Your task to perform on an android device: toggle translation in the chrome app Image 0: 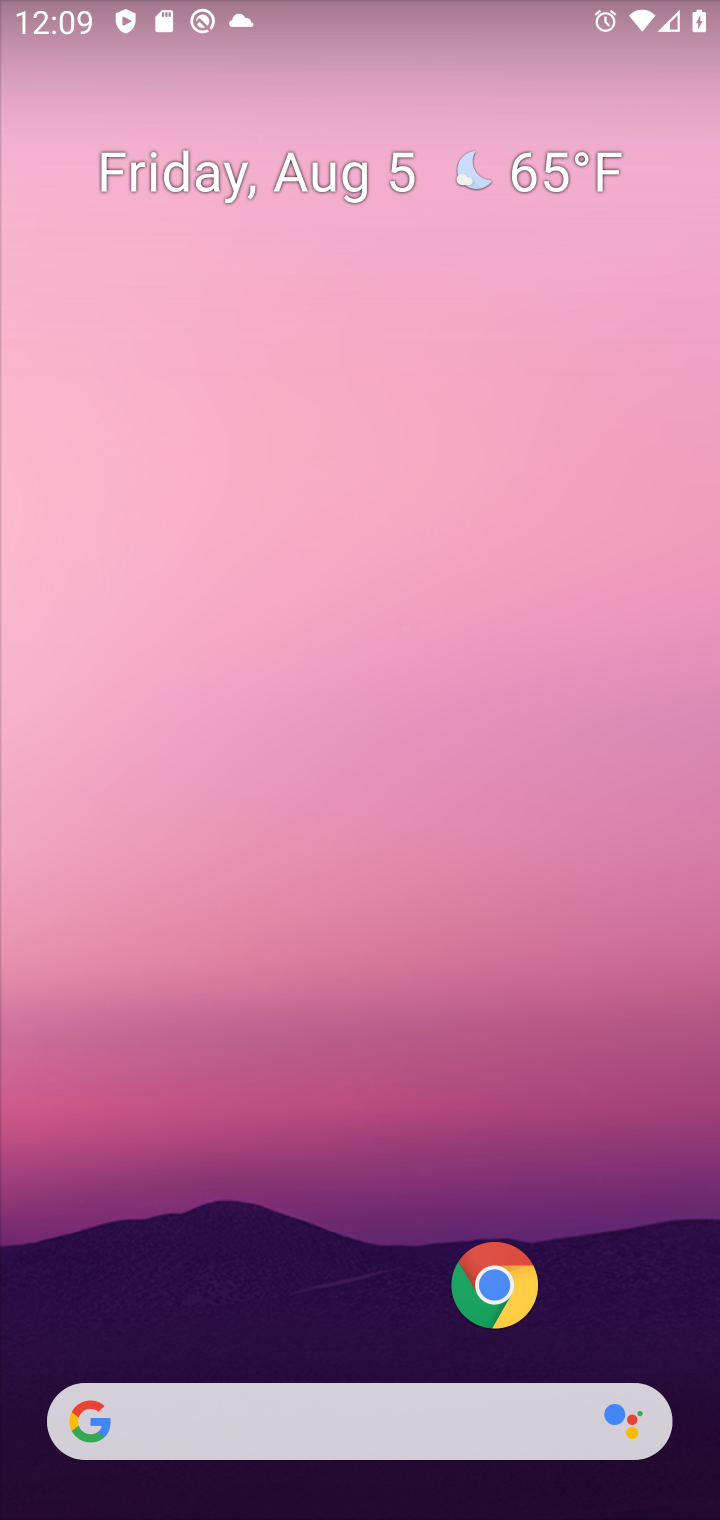
Step 0: press home button
Your task to perform on an android device: toggle translation in the chrome app Image 1: 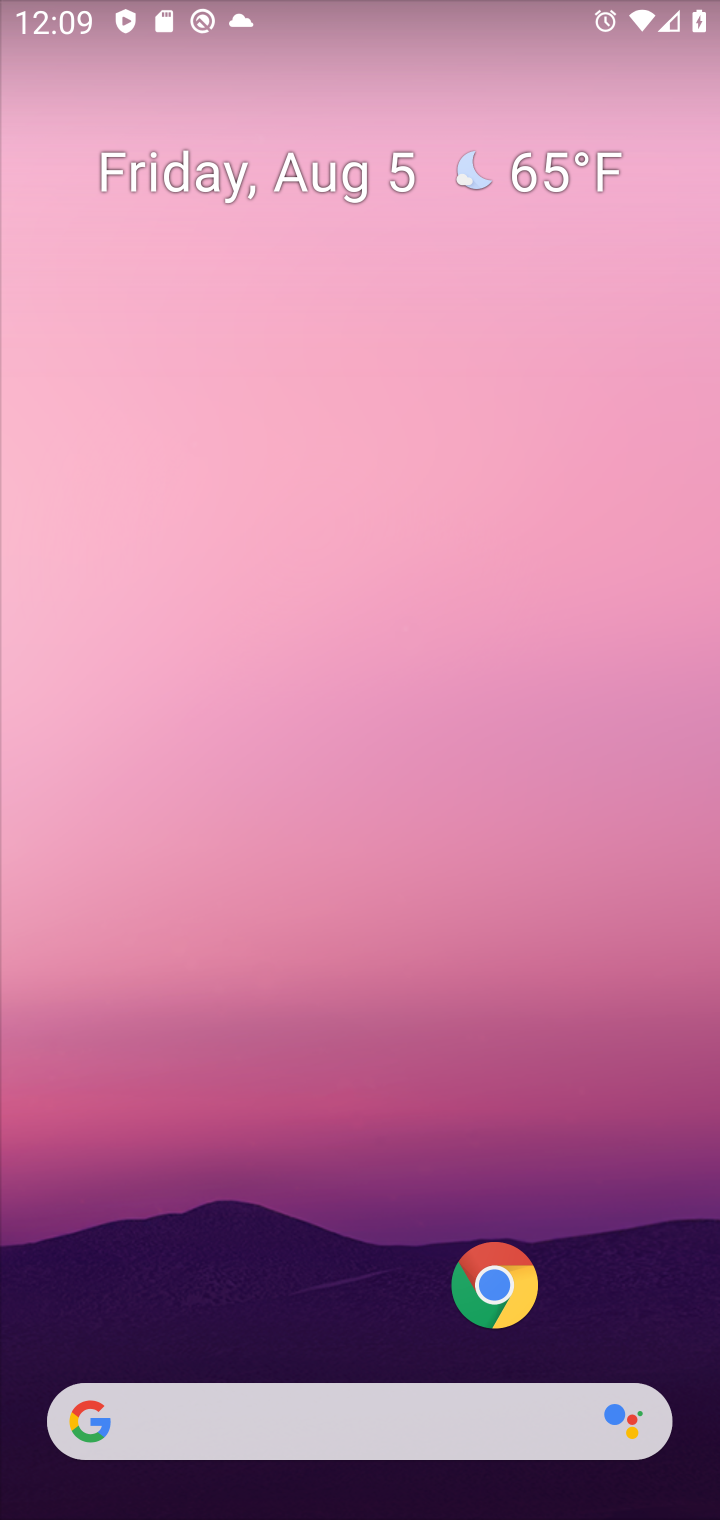
Step 1: drag from (239, 1488) to (173, 115)
Your task to perform on an android device: toggle translation in the chrome app Image 2: 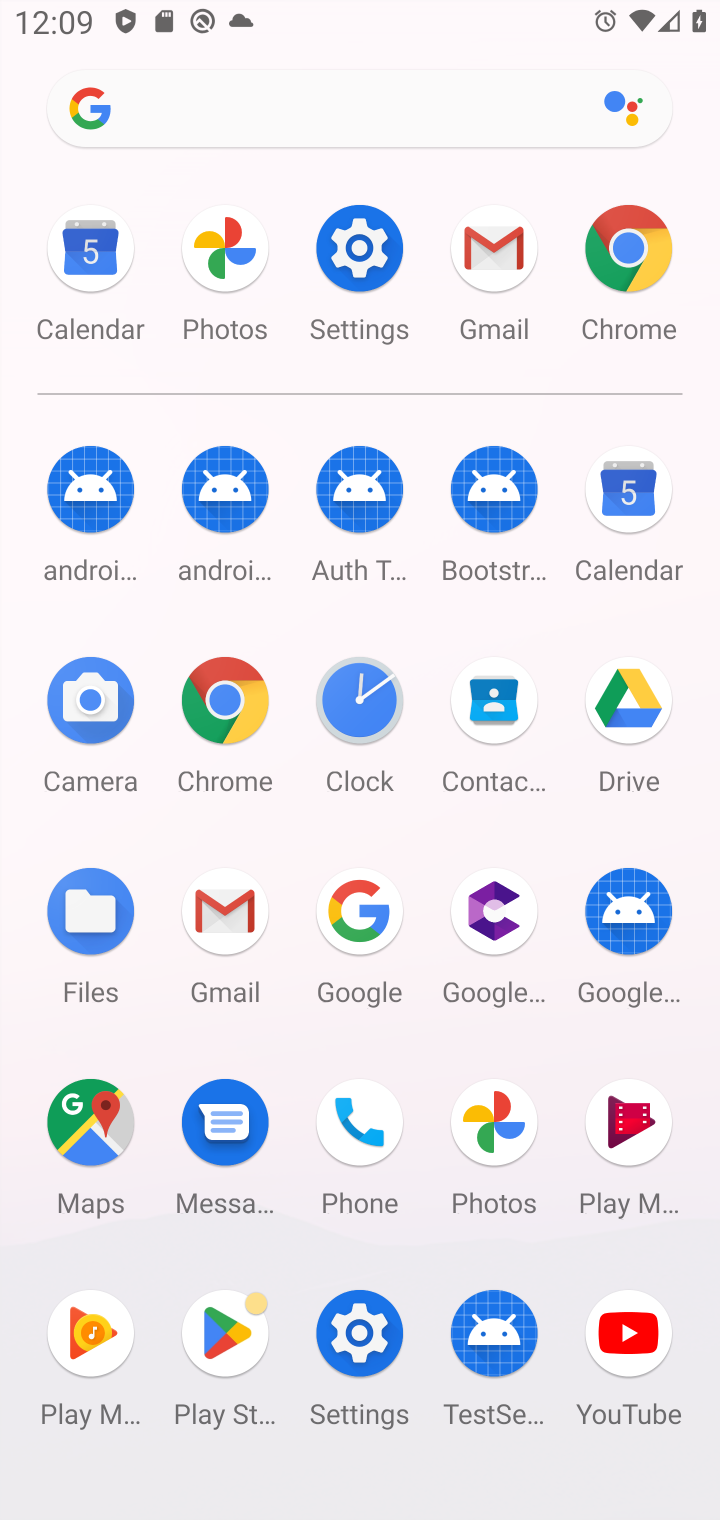
Step 2: click (616, 254)
Your task to perform on an android device: toggle translation in the chrome app Image 3: 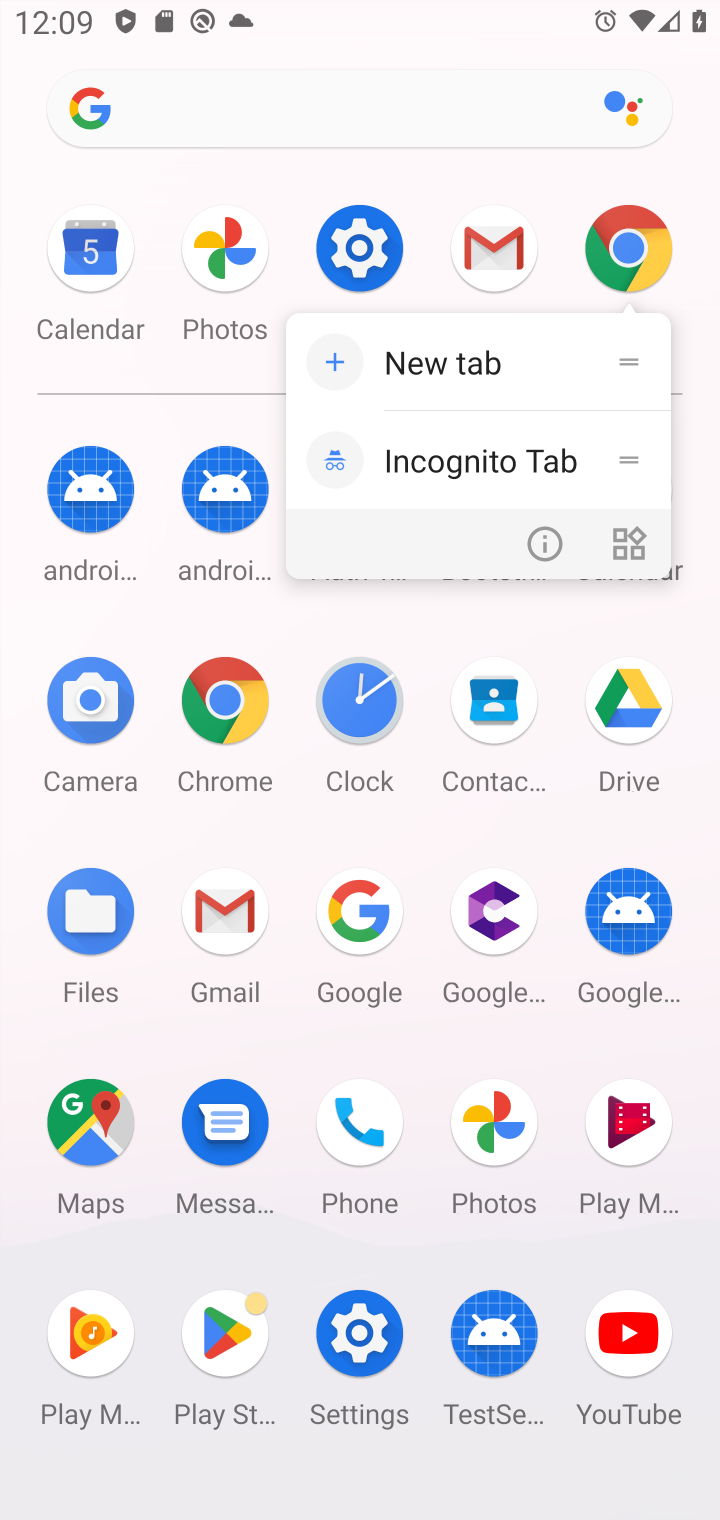
Step 3: click (616, 254)
Your task to perform on an android device: toggle translation in the chrome app Image 4: 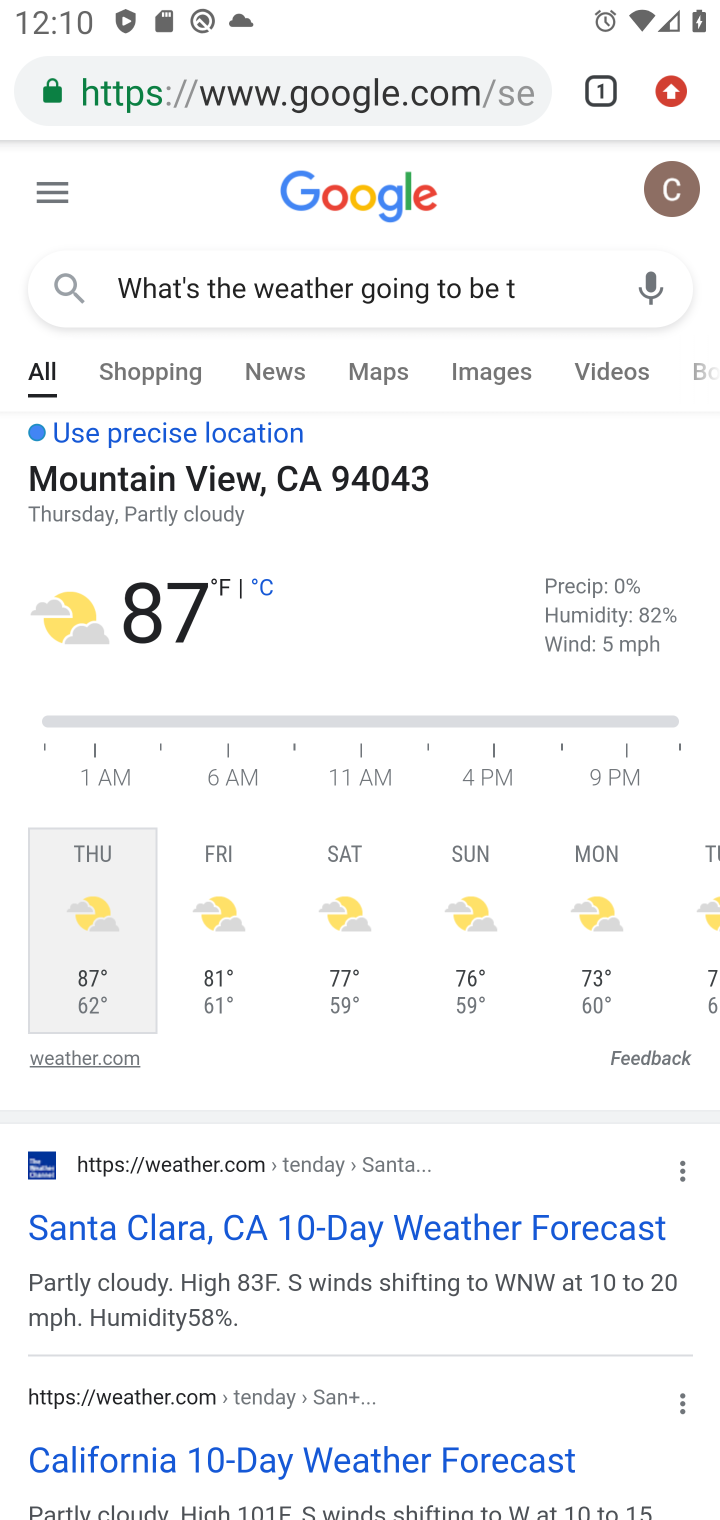
Step 4: drag from (656, 83) to (362, 1153)
Your task to perform on an android device: toggle translation in the chrome app Image 5: 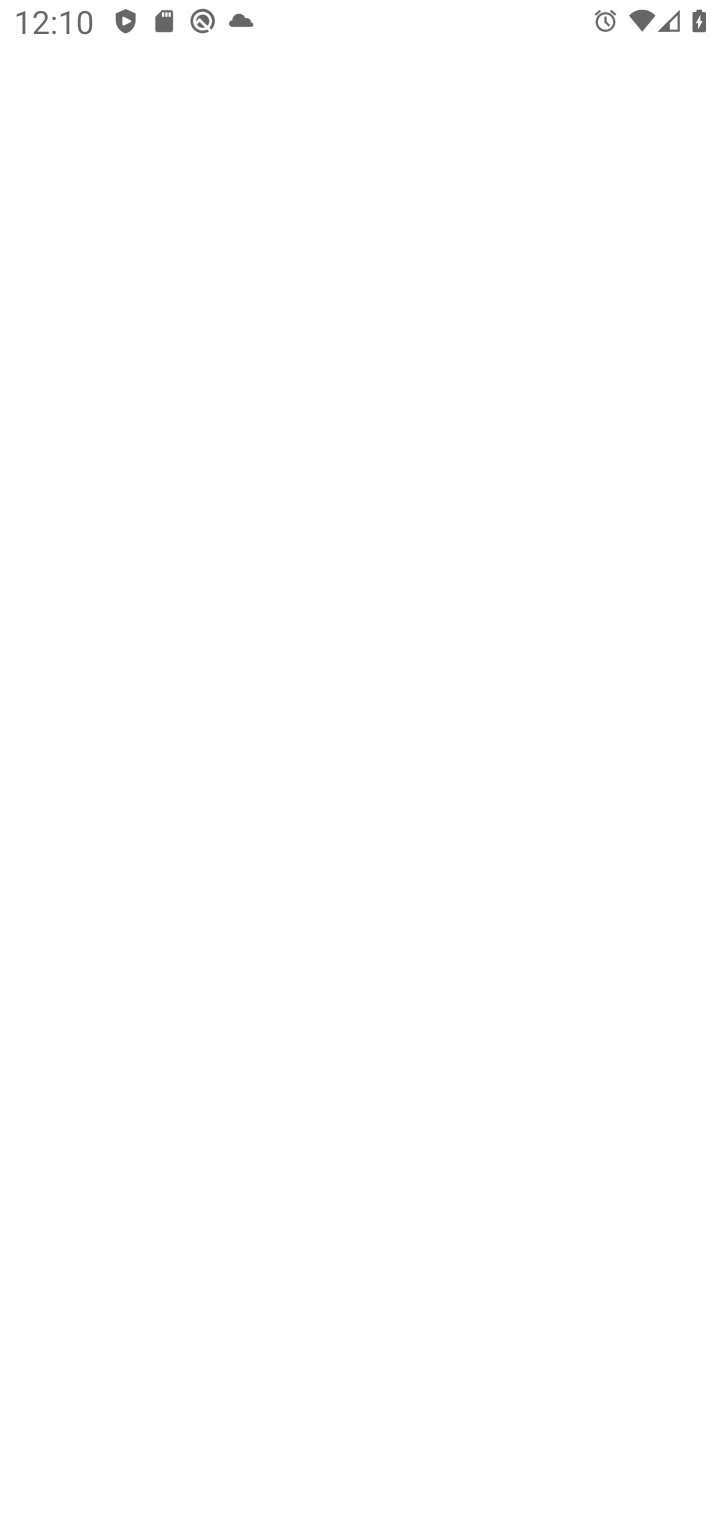
Step 5: press back button
Your task to perform on an android device: toggle translation in the chrome app Image 6: 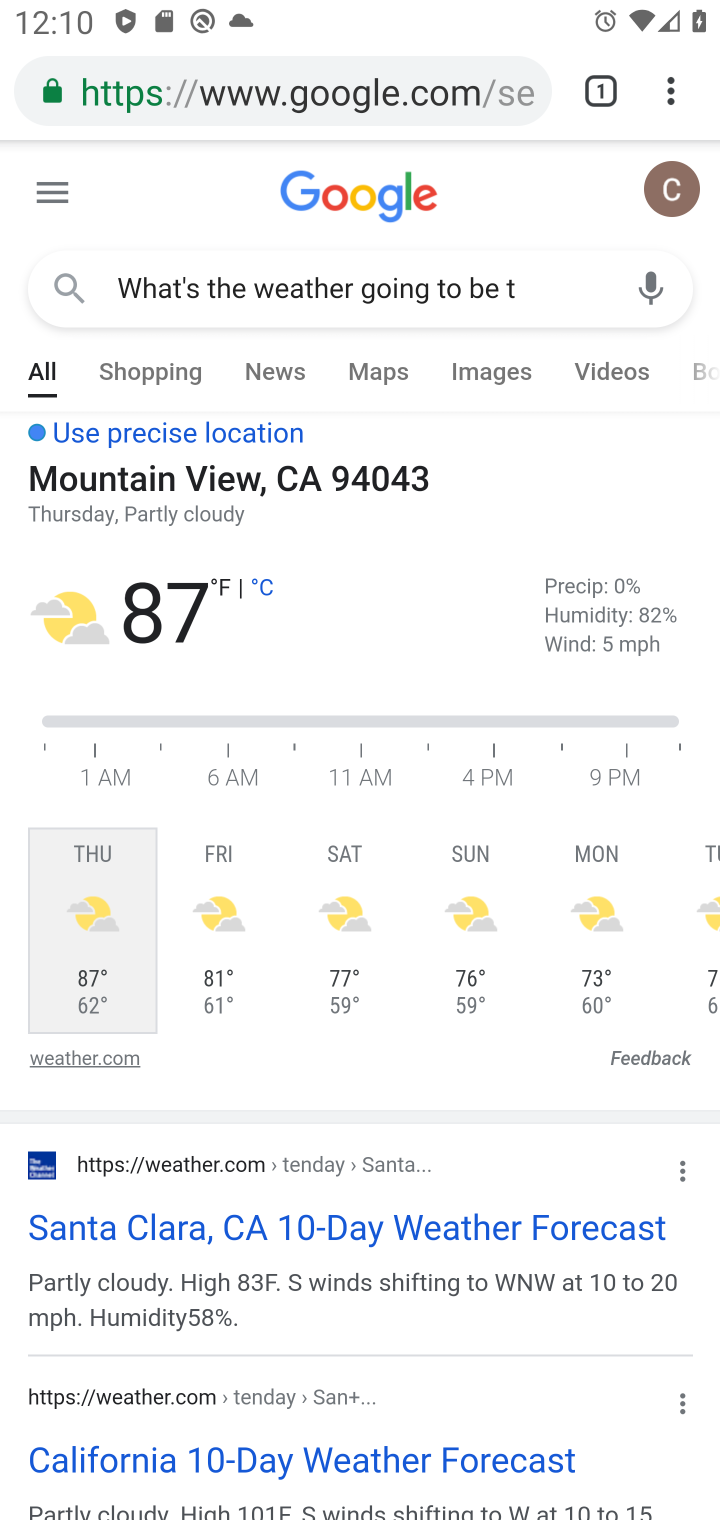
Step 6: drag from (683, 85) to (315, 1076)
Your task to perform on an android device: toggle translation in the chrome app Image 7: 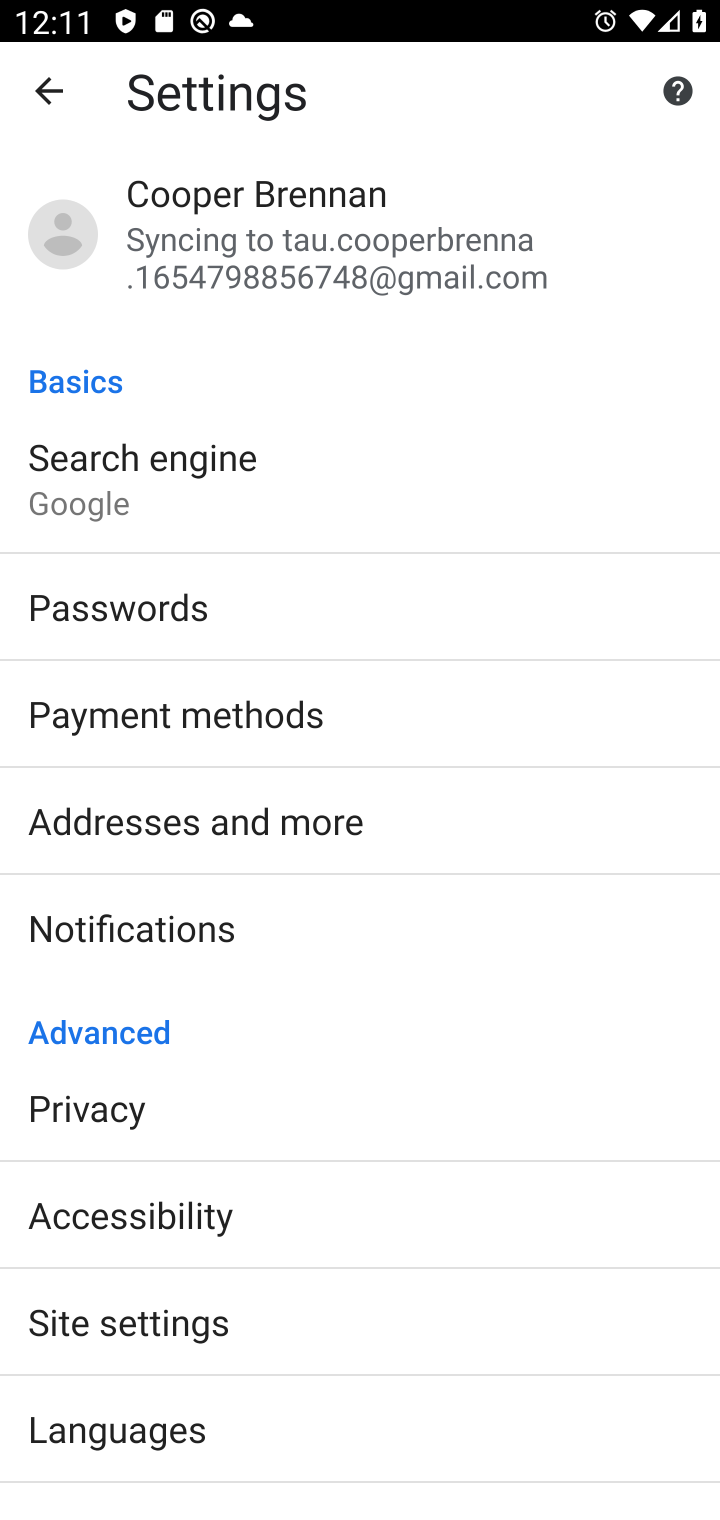
Step 7: click (196, 1301)
Your task to perform on an android device: toggle translation in the chrome app Image 8: 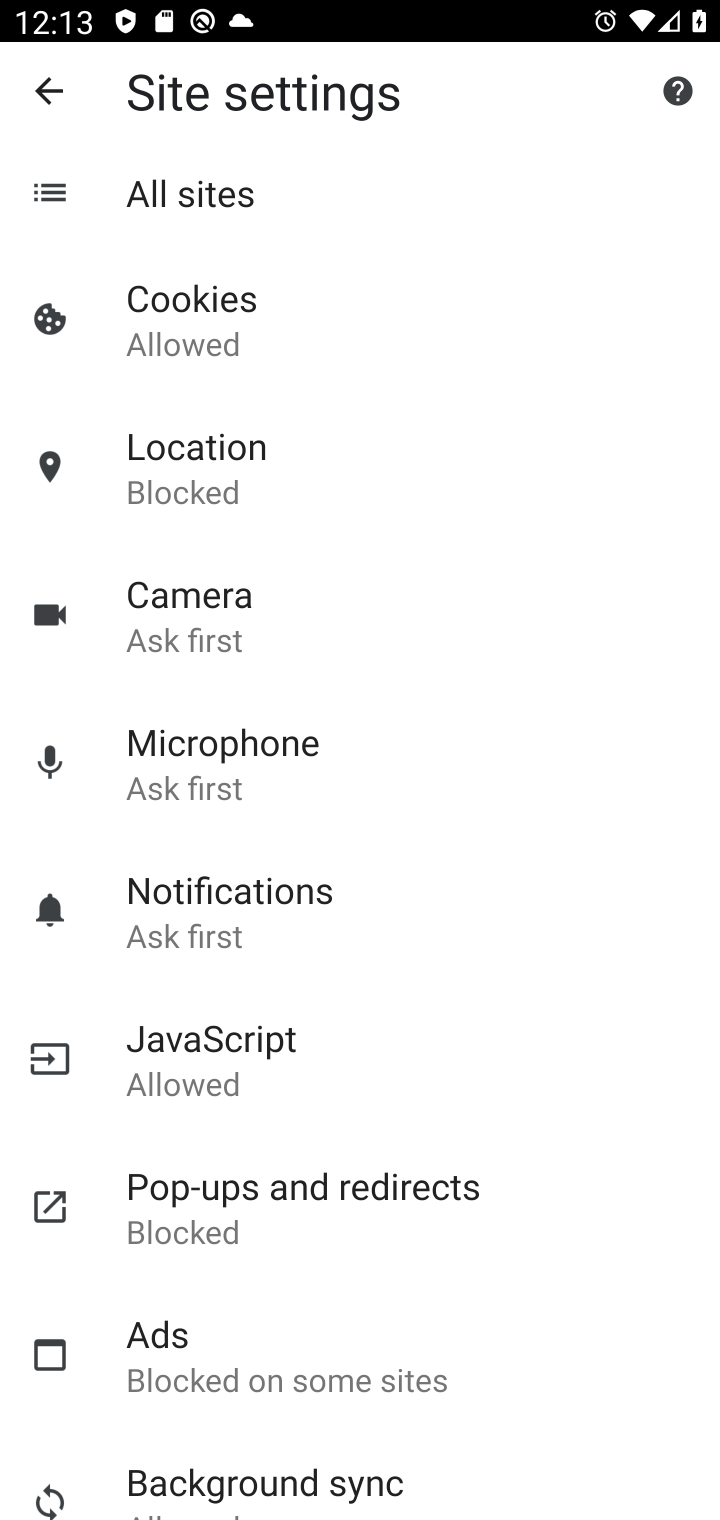
Step 8: drag from (271, 1157) to (313, 380)
Your task to perform on an android device: toggle translation in the chrome app Image 9: 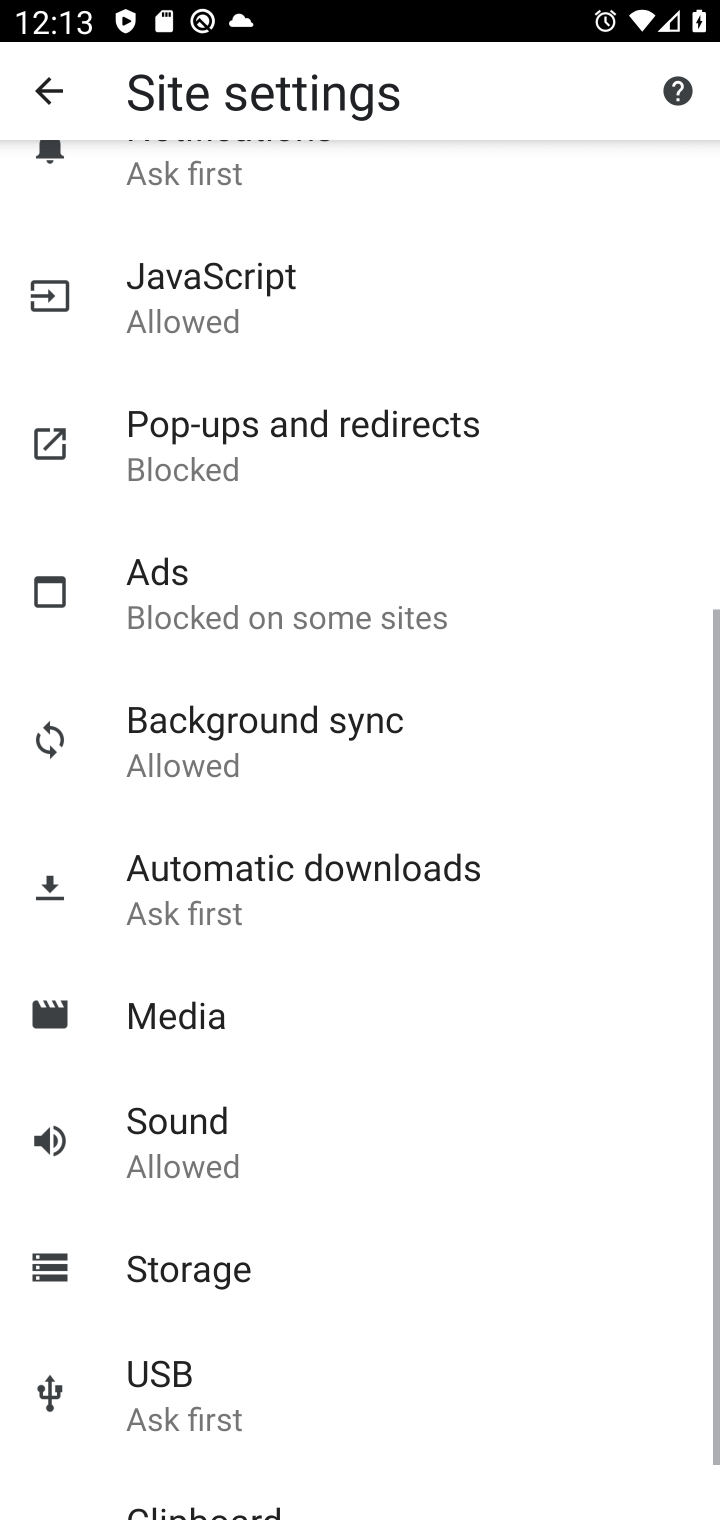
Step 9: drag from (318, 1157) to (317, 549)
Your task to perform on an android device: toggle translation in the chrome app Image 10: 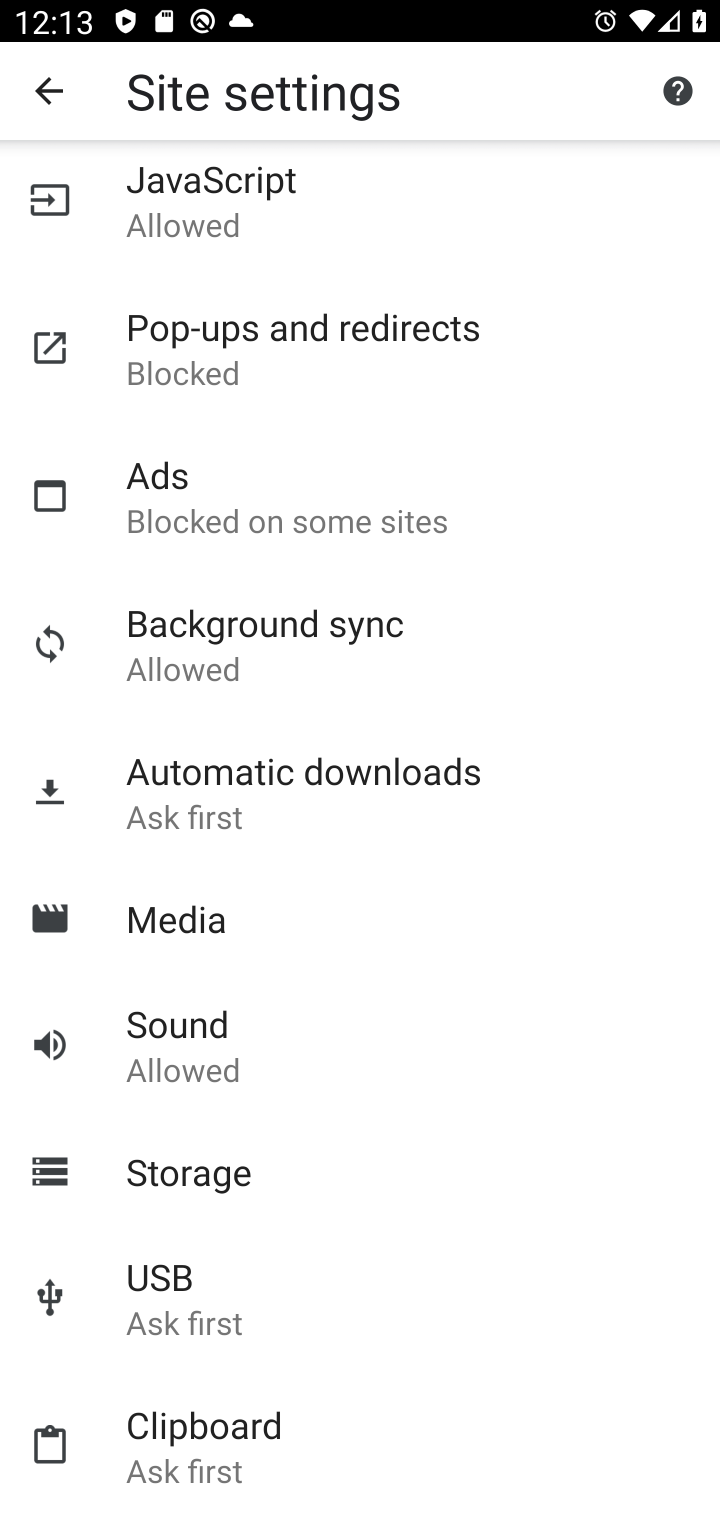
Step 10: click (23, 85)
Your task to perform on an android device: toggle translation in the chrome app Image 11: 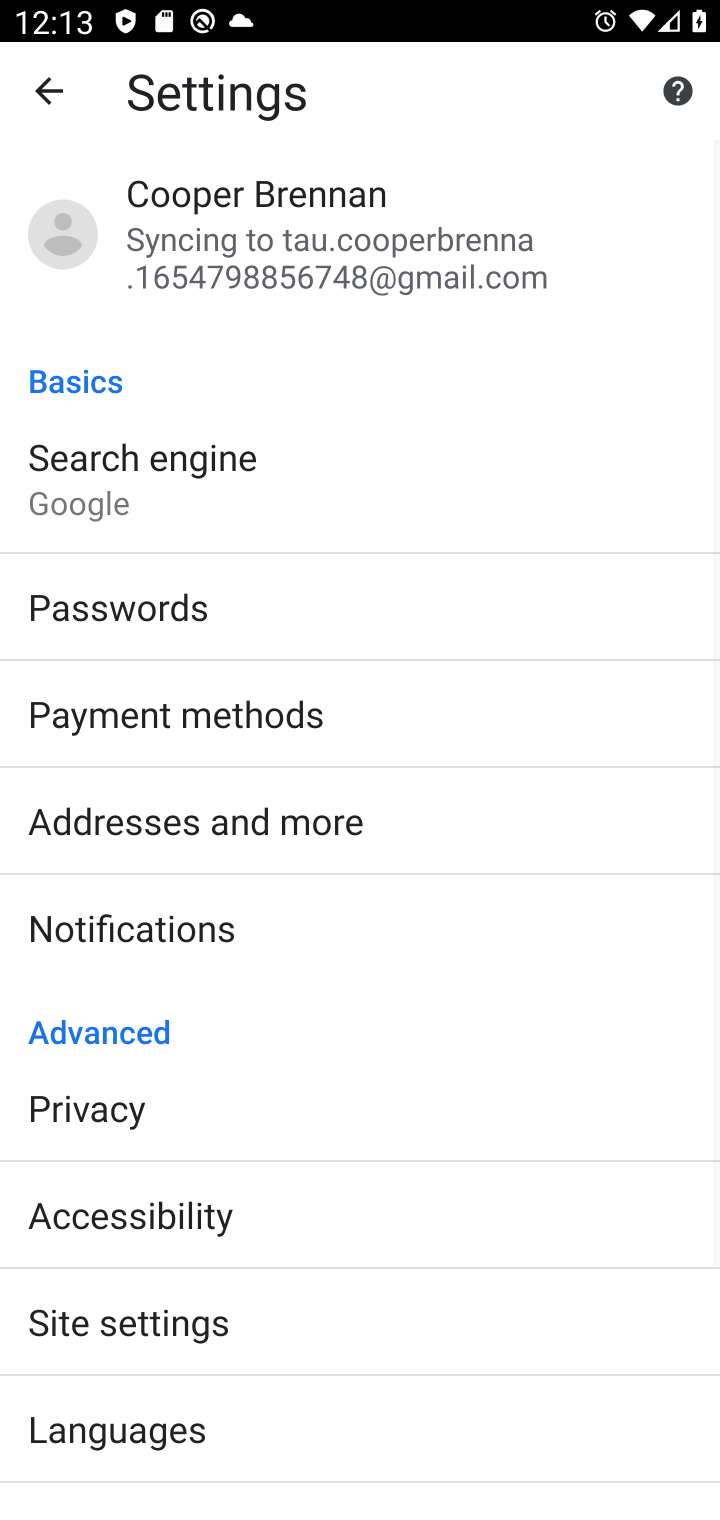
Step 11: drag from (240, 1241) to (426, 750)
Your task to perform on an android device: toggle translation in the chrome app Image 12: 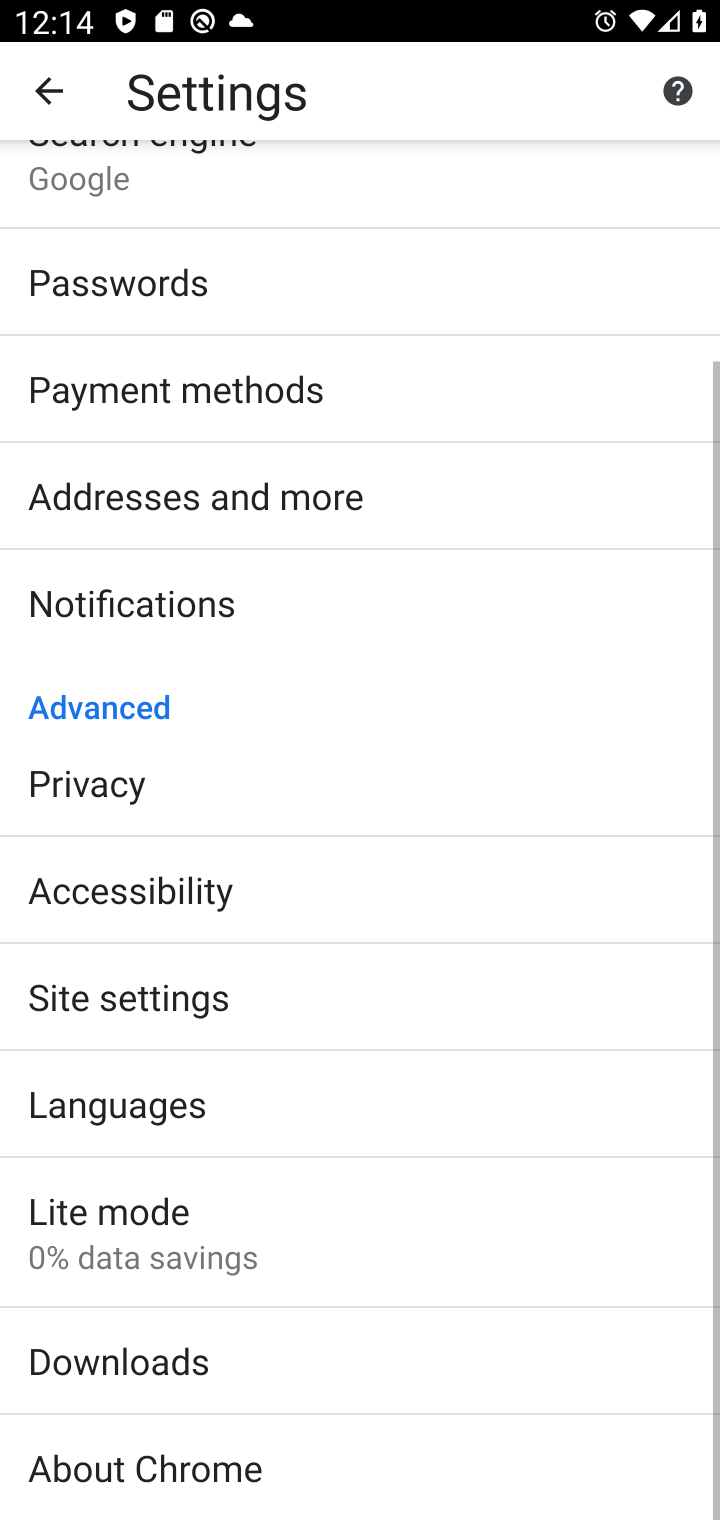
Step 12: click (132, 1088)
Your task to perform on an android device: toggle translation in the chrome app Image 13: 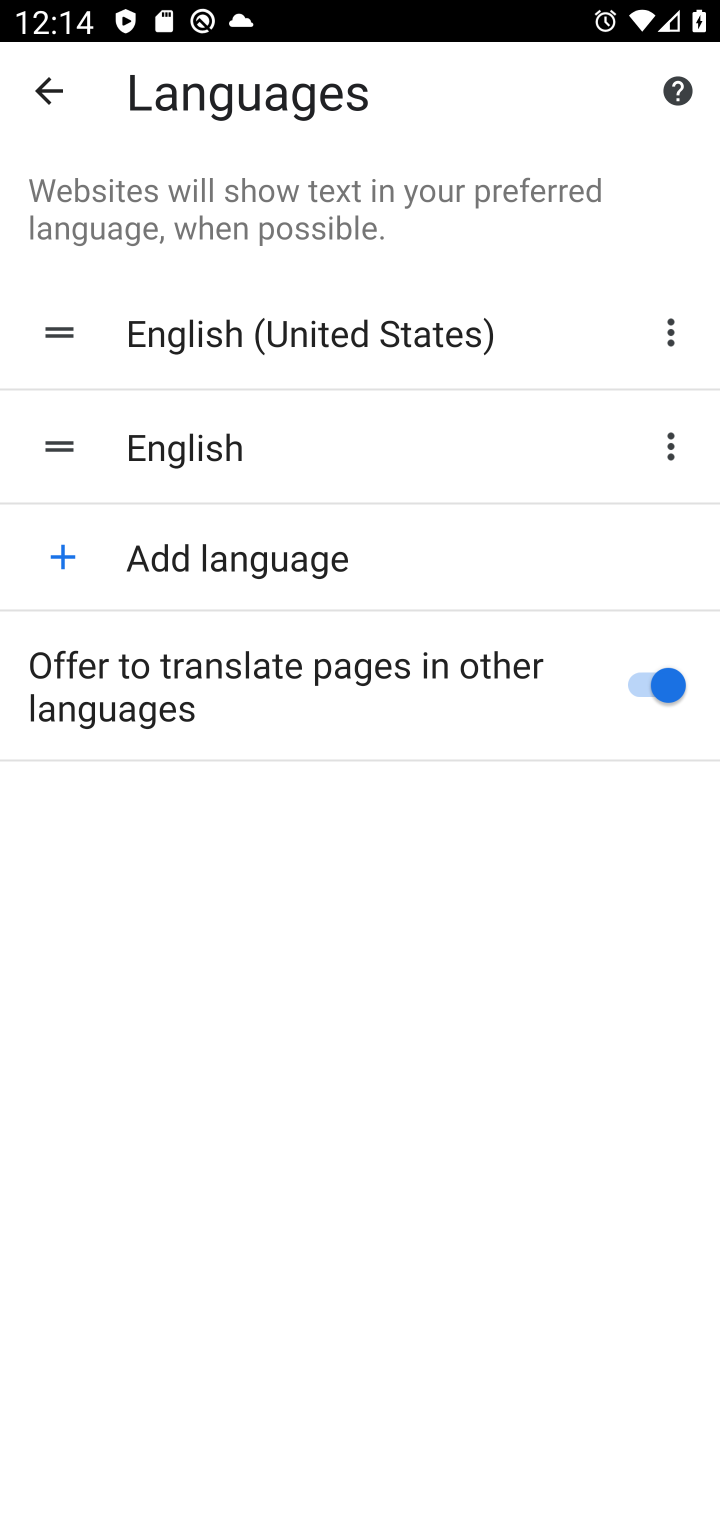
Step 13: task complete